Your task to perform on an android device: Open the map Image 0: 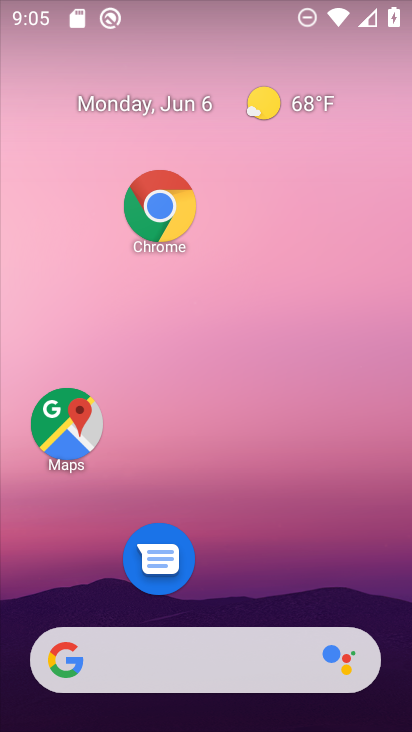
Step 0: drag from (258, 565) to (249, 227)
Your task to perform on an android device: Open the map Image 1: 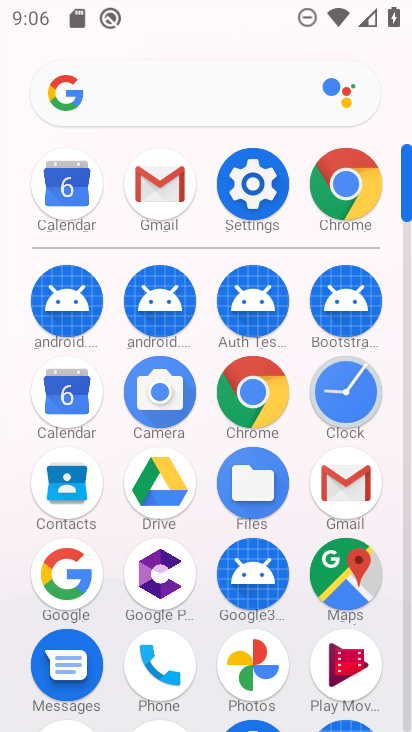
Step 1: click (336, 596)
Your task to perform on an android device: Open the map Image 2: 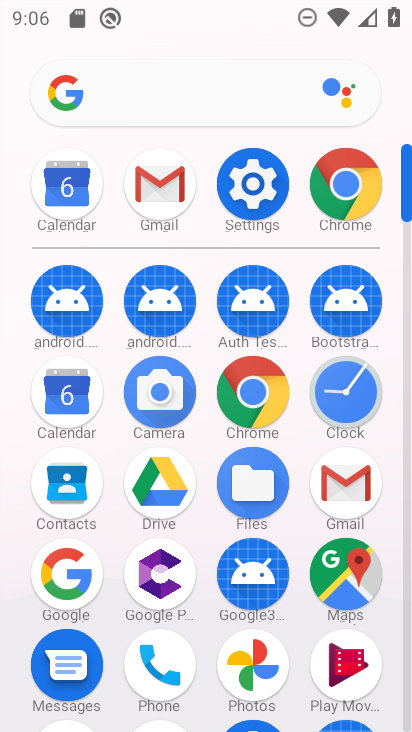
Step 2: click (336, 592)
Your task to perform on an android device: Open the map Image 3: 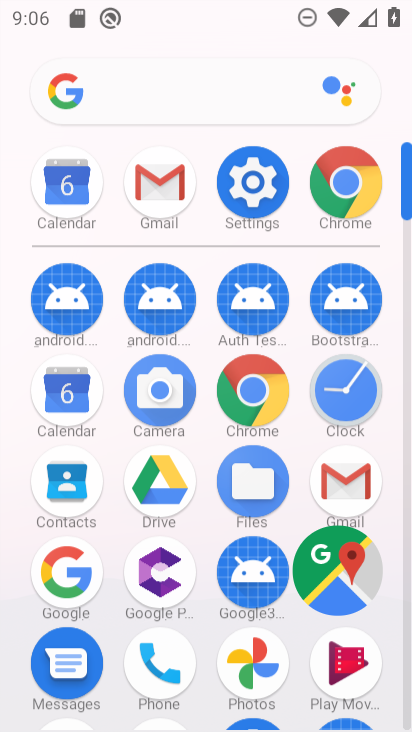
Step 3: click (337, 591)
Your task to perform on an android device: Open the map Image 4: 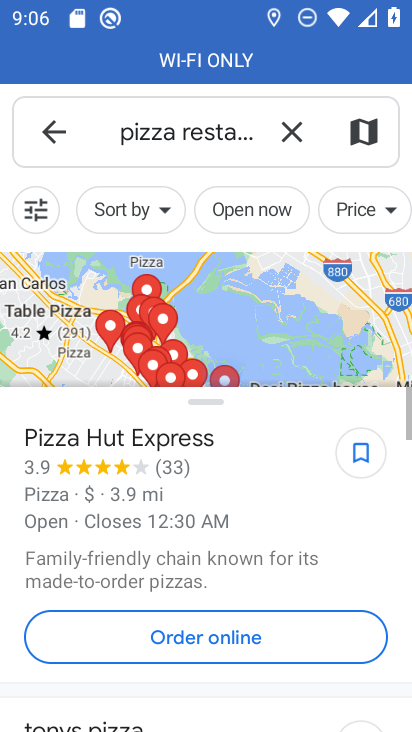
Step 4: click (289, 121)
Your task to perform on an android device: Open the map Image 5: 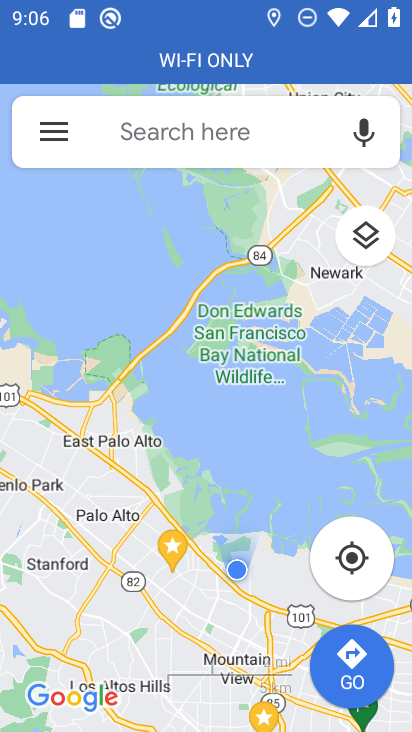
Step 5: task complete